Your task to perform on an android device: turn on improve location accuracy Image 0: 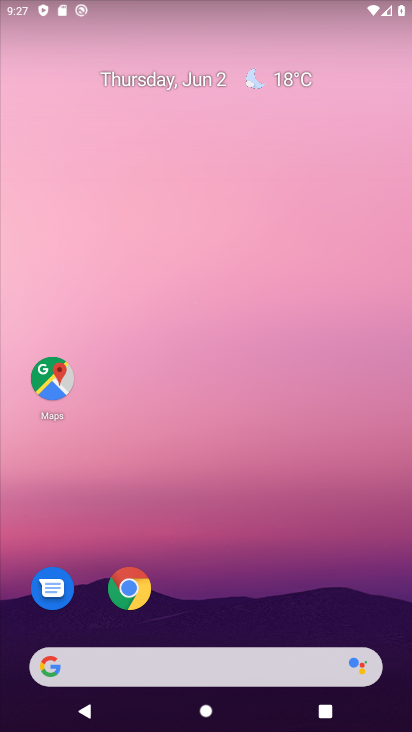
Step 0: drag from (278, 685) to (147, 20)
Your task to perform on an android device: turn on improve location accuracy Image 1: 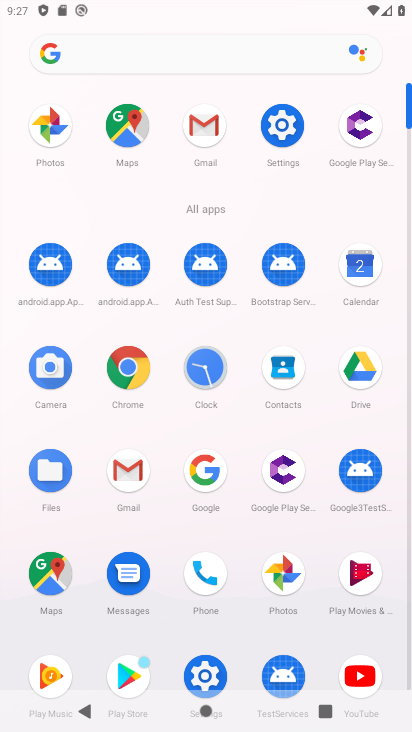
Step 1: click (274, 112)
Your task to perform on an android device: turn on improve location accuracy Image 2: 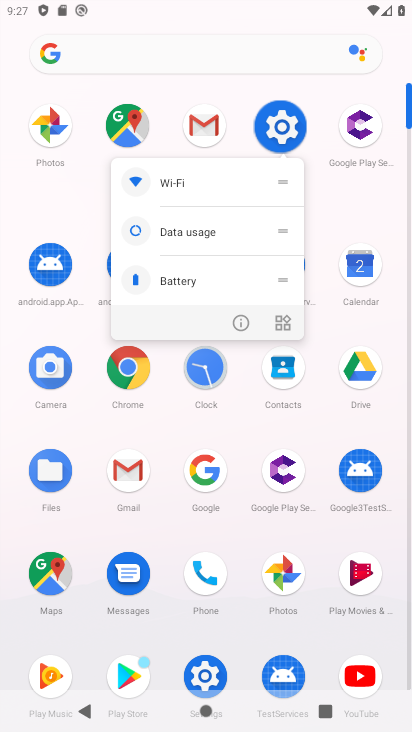
Step 2: click (271, 113)
Your task to perform on an android device: turn on improve location accuracy Image 3: 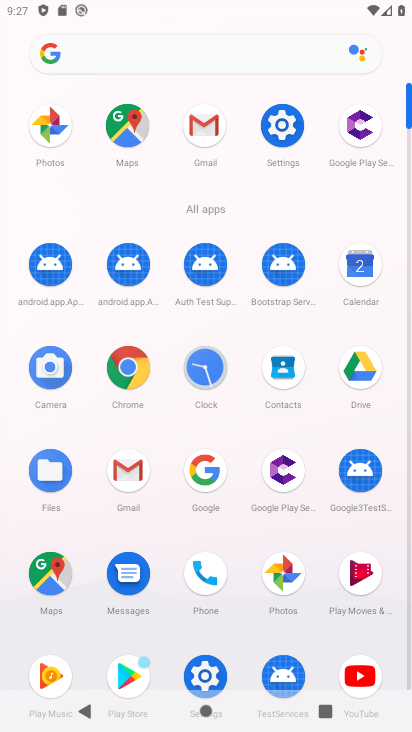
Step 3: click (270, 114)
Your task to perform on an android device: turn on improve location accuracy Image 4: 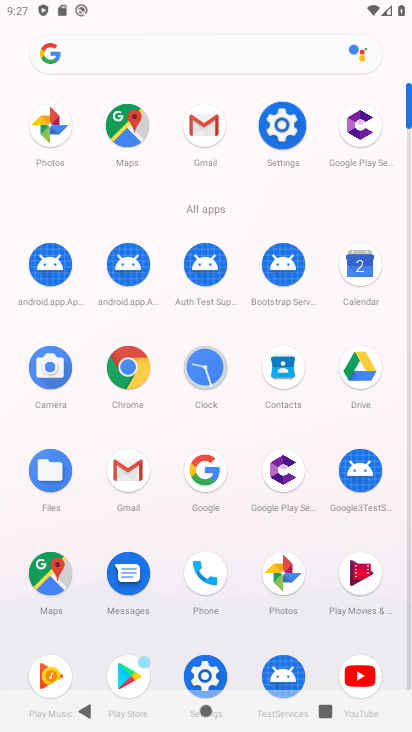
Step 4: click (272, 119)
Your task to perform on an android device: turn on improve location accuracy Image 5: 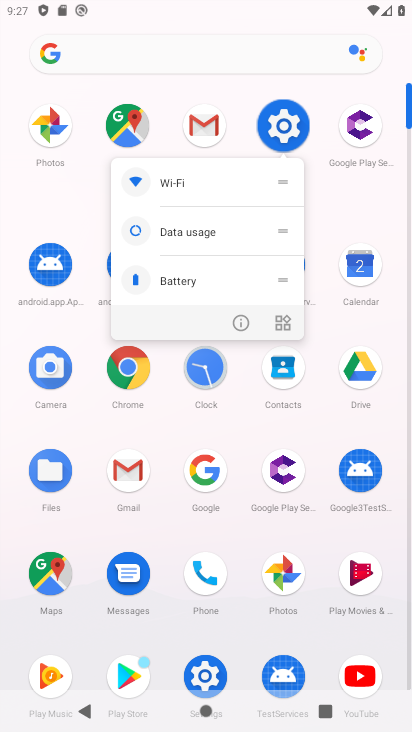
Step 5: click (276, 123)
Your task to perform on an android device: turn on improve location accuracy Image 6: 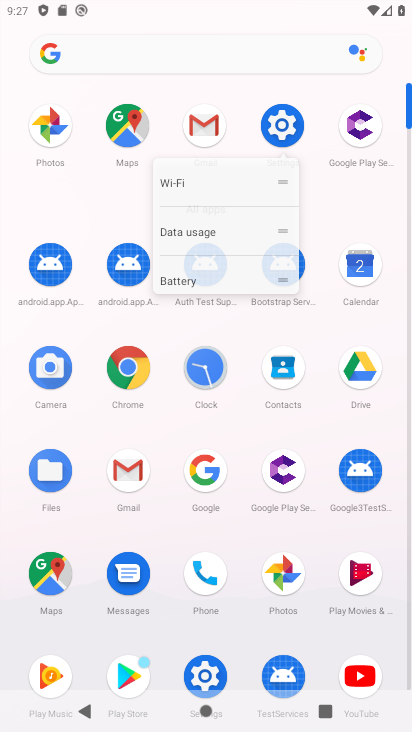
Step 6: click (276, 123)
Your task to perform on an android device: turn on improve location accuracy Image 7: 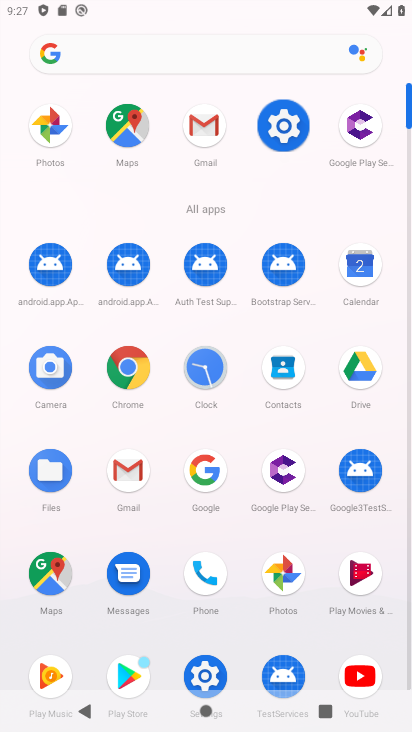
Step 7: click (280, 126)
Your task to perform on an android device: turn on improve location accuracy Image 8: 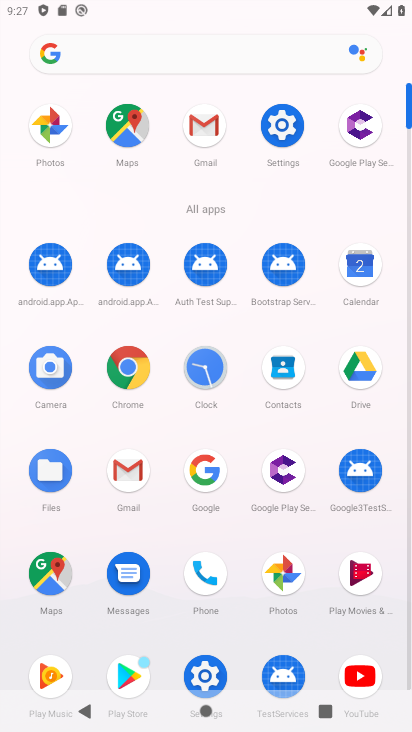
Step 8: click (280, 126)
Your task to perform on an android device: turn on improve location accuracy Image 9: 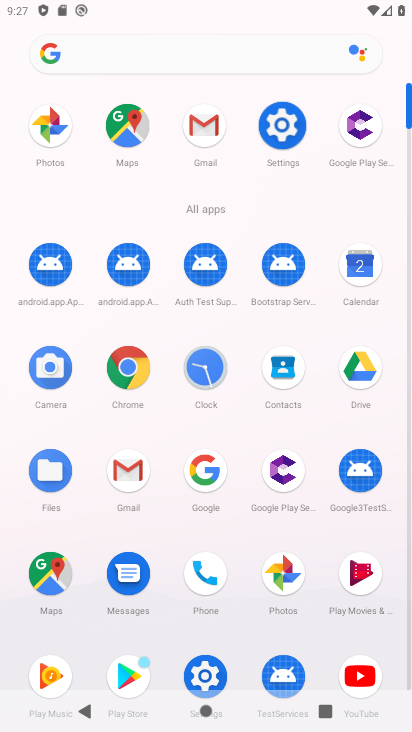
Step 9: click (281, 131)
Your task to perform on an android device: turn on improve location accuracy Image 10: 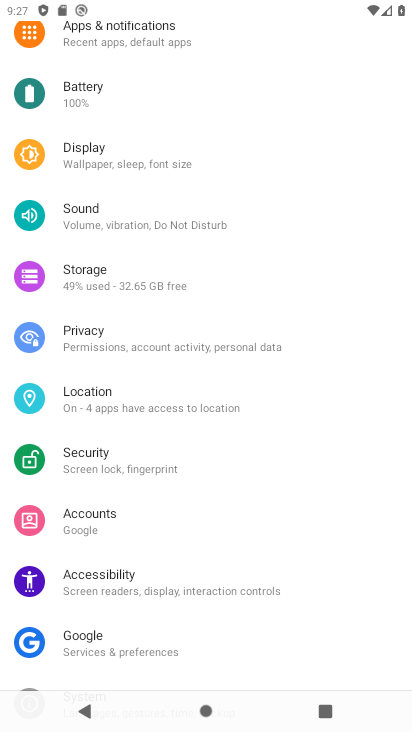
Step 10: click (281, 140)
Your task to perform on an android device: turn on improve location accuracy Image 11: 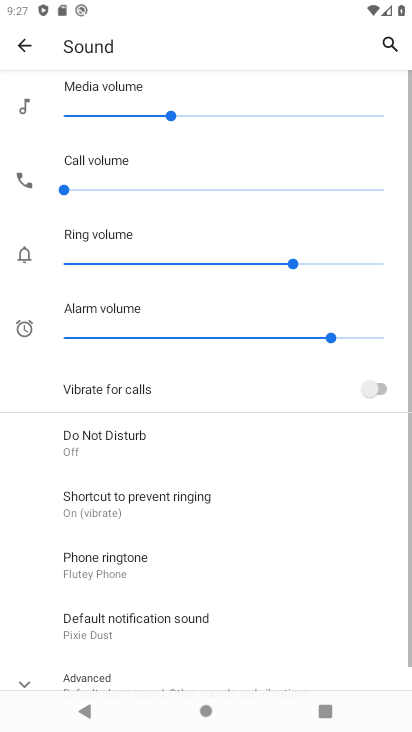
Step 11: click (24, 37)
Your task to perform on an android device: turn on improve location accuracy Image 12: 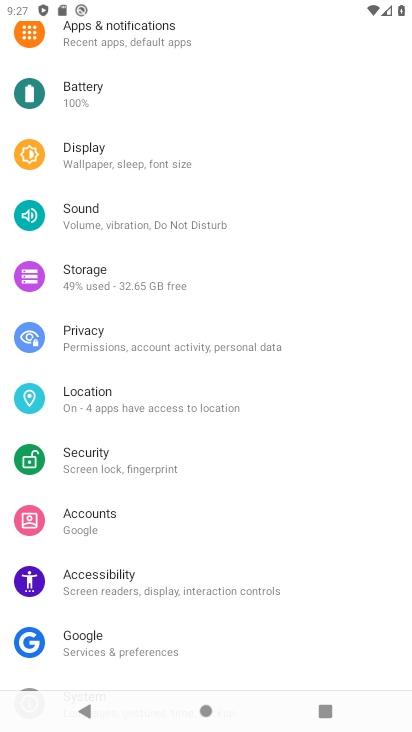
Step 12: drag from (233, 507) to (184, 196)
Your task to perform on an android device: turn on improve location accuracy Image 13: 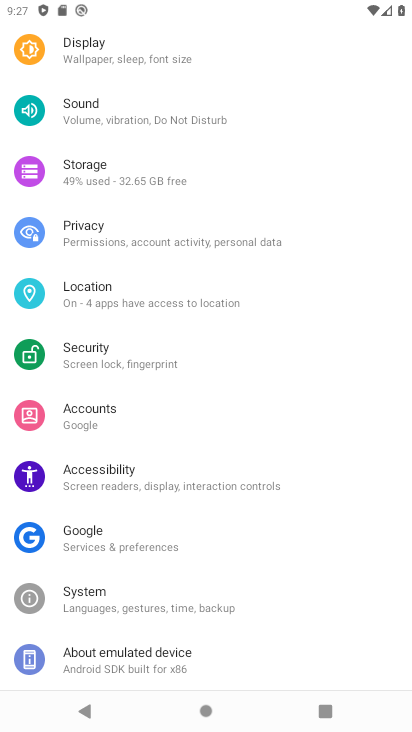
Step 13: click (102, 291)
Your task to perform on an android device: turn on improve location accuracy Image 14: 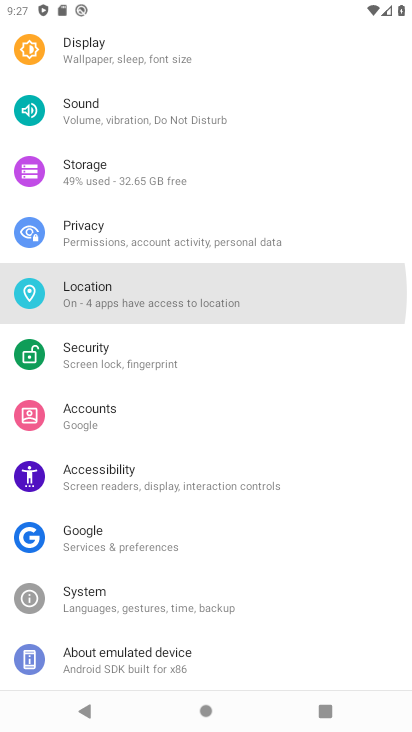
Step 14: click (101, 291)
Your task to perform on an android device: turn on improve location accuracy Image 15: 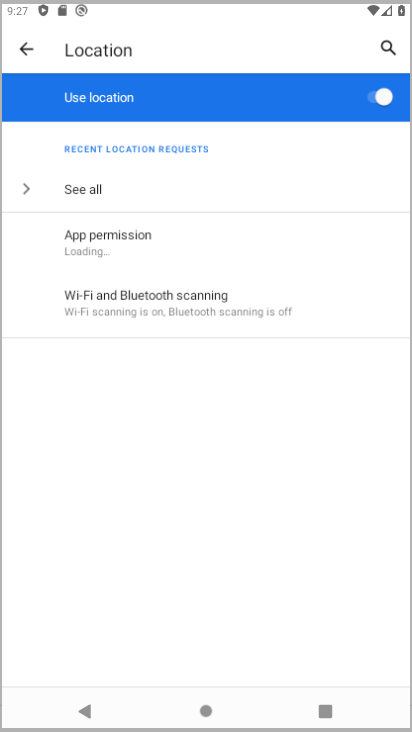
Step 15: click (107, 300)
Your task to perform on an android device: turn on improve location accuracy Image 16: 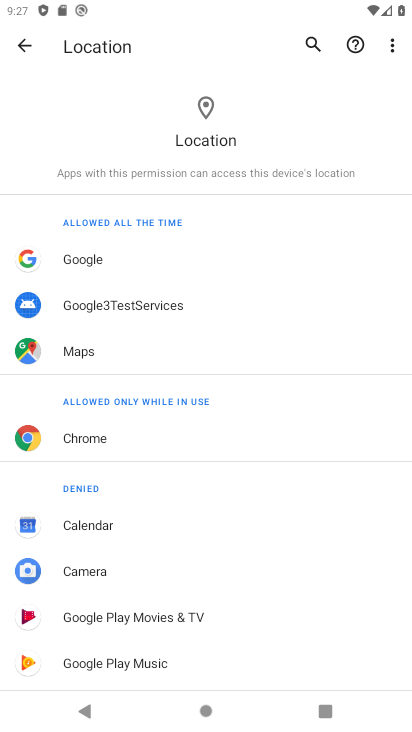
Step 16: click (28, 41)
Your task to perform on an android device: turn on improve location accuracy Image 17: 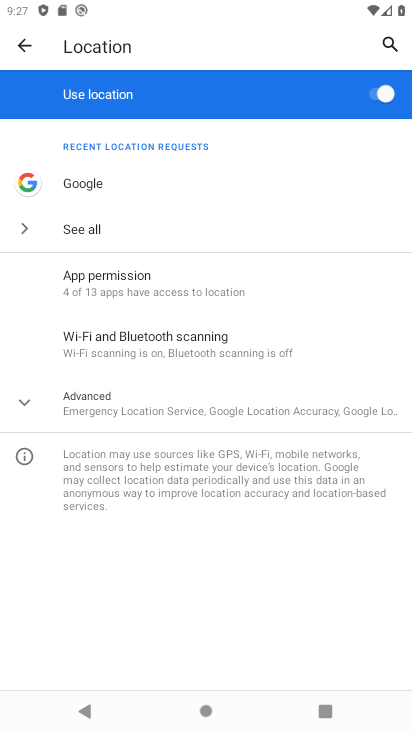
Step 17: click (152, 412)
Your task to perform on an android device: turn on improve location accuracy Image 18: 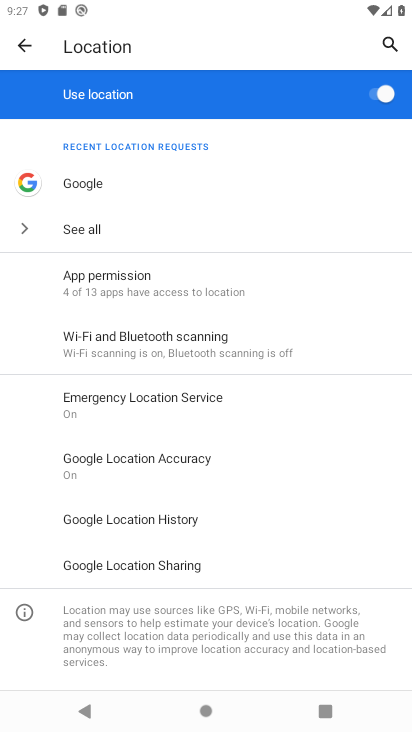
Step 18: click (134, 459)
Your task to perform on an android device: turn on improve location accuracy Image 19: 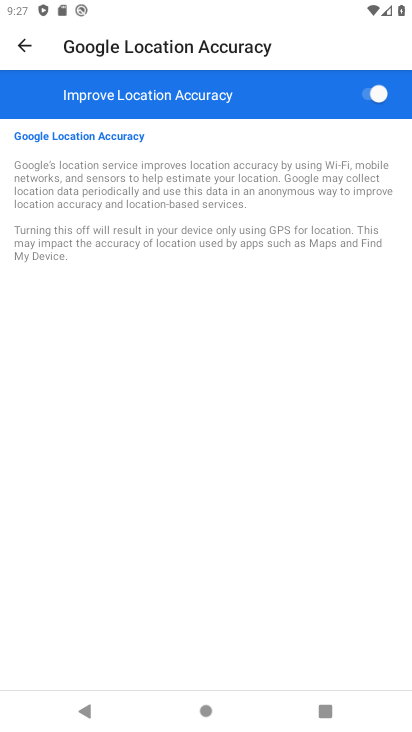
Step 19: task complete